Your task to perform on an android device: turn off notifications in google photos Image 0: 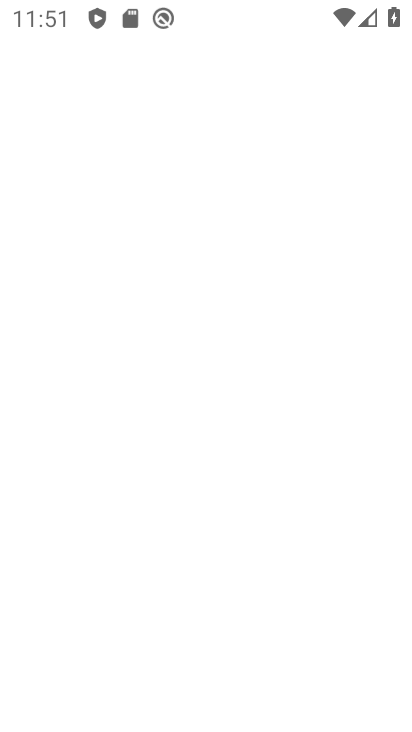
Step 0: press home button
Your task to perform on an android device: turn off notifications in google photos Image 1: 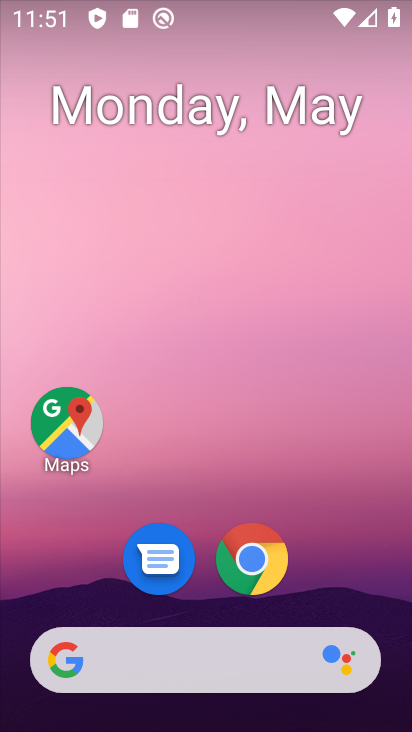
Step 1: drag from (116, 612) to (226, 91)
Your task to perform on an android device: turn off notifications in google photos Image 2: 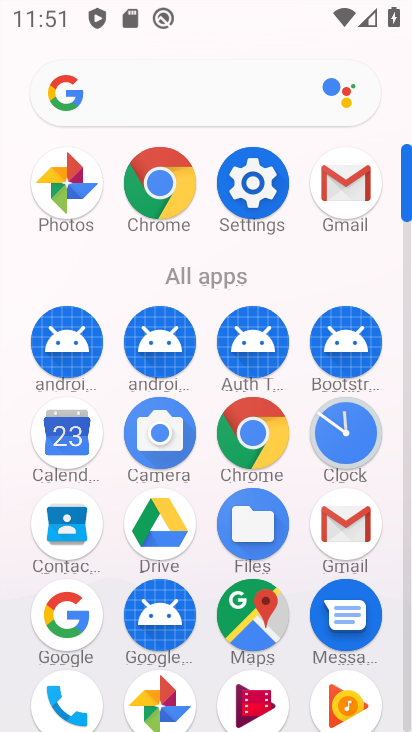
Step 2: drag from (159, 635) to (235, 327)
Your task to perform on an android device: turn off notifications in google photos Image 3: 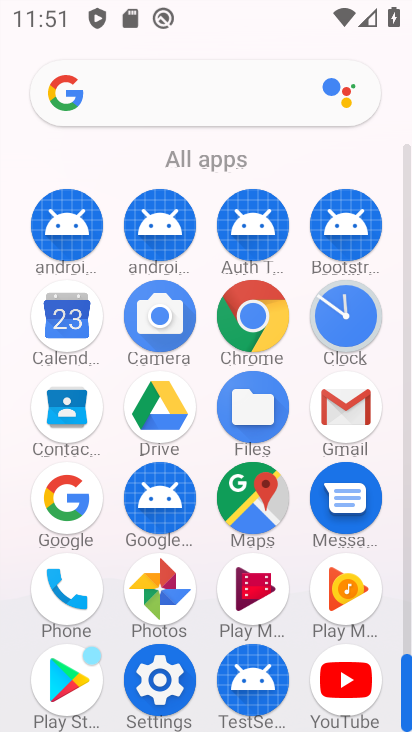
Step 3: click (166, 606)
Your task to perform on an android device: turn off notifications in google photos Image 4: 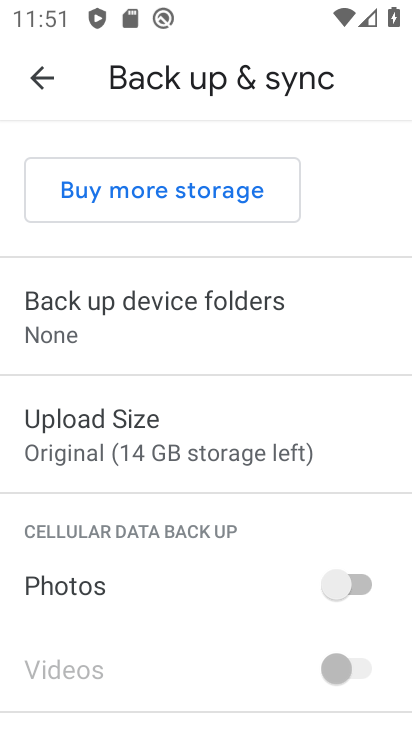
Step 4: drag from (161, 647) to (181, 693)
Your task to perform on an android device: turn off notifications in google photos Image 5: 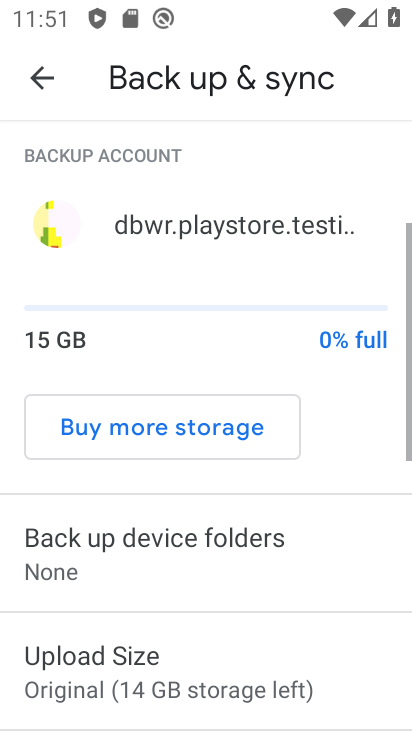
Step 5: click (63, 75)
Your task to perform on an android device: turn off notifications in google photos Image 6: 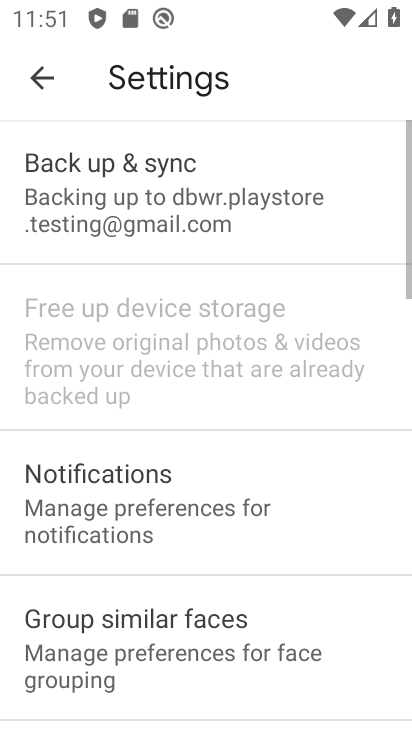
Step 6: click (138, 500)
Your task to perform on an android device: turn off notifications in google photos Image 7: 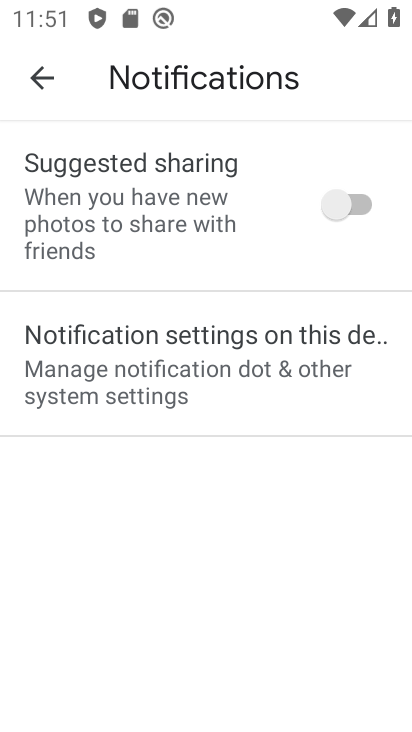
Step 7: click (233, 390)
Your task to perform on an android device: turn off notifications in google photos Image 8: 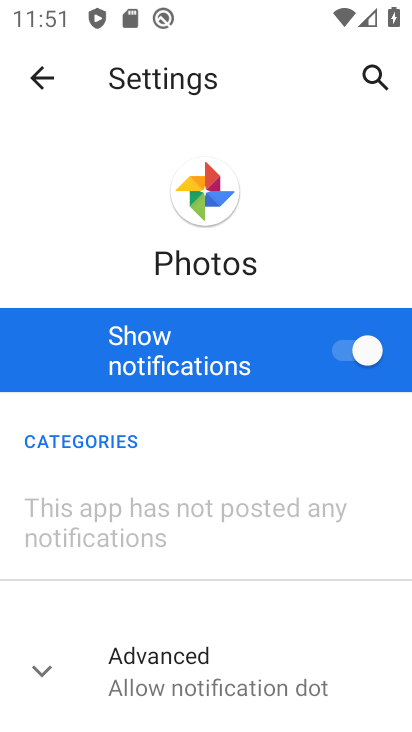
Step 8: click (352, 350)
Your task to perform on an android device: turn off notifications in google photos Image 9: 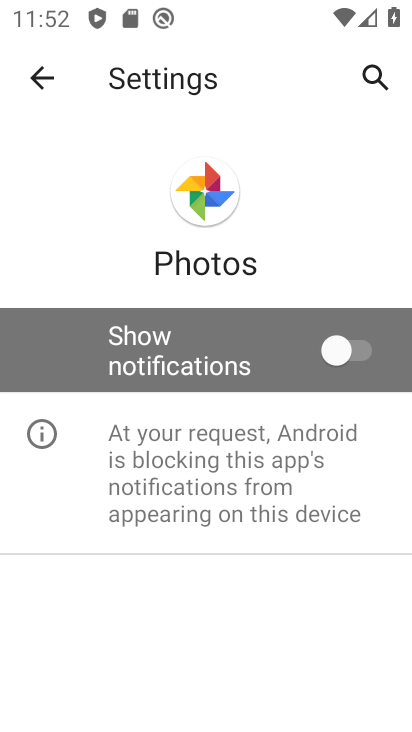
Step 9: task complete